Your task to perform on an android device: Search for "razer kraken" on target, select the first entry, add it to the cart, then select checkout. Image 0: 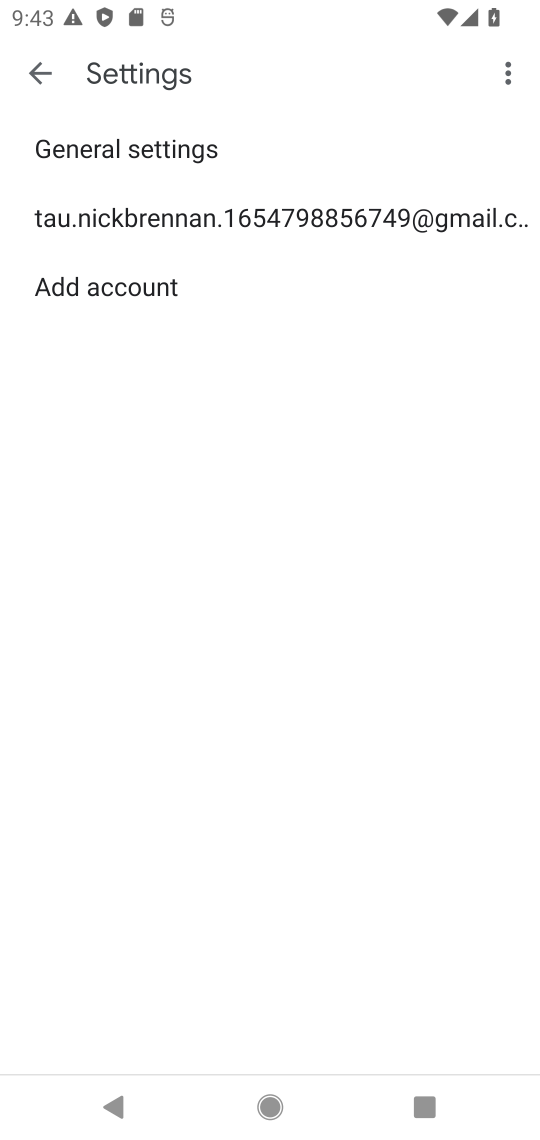
Step 0: press home button
Your task to perform on an android device: Search for "razer kraken" on target, select the first entry, add it to the cart, then select checkout. Image 1: 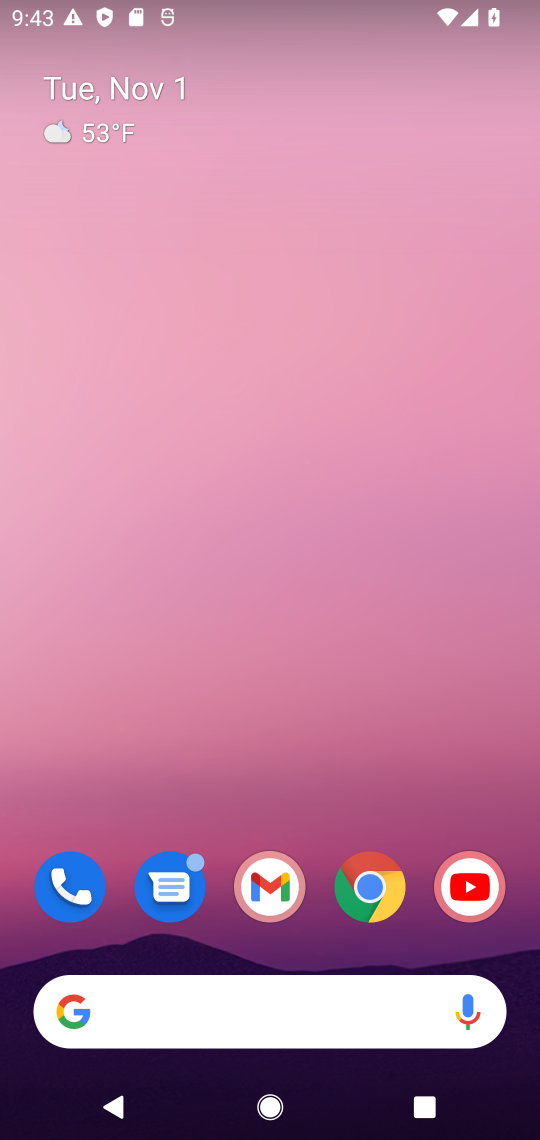
Step 1: click (365, 187)
Your task to perform on an android device: Search for "razer kraken" on target, select the first entry, add it to the cart, then select checkout. Image 2: 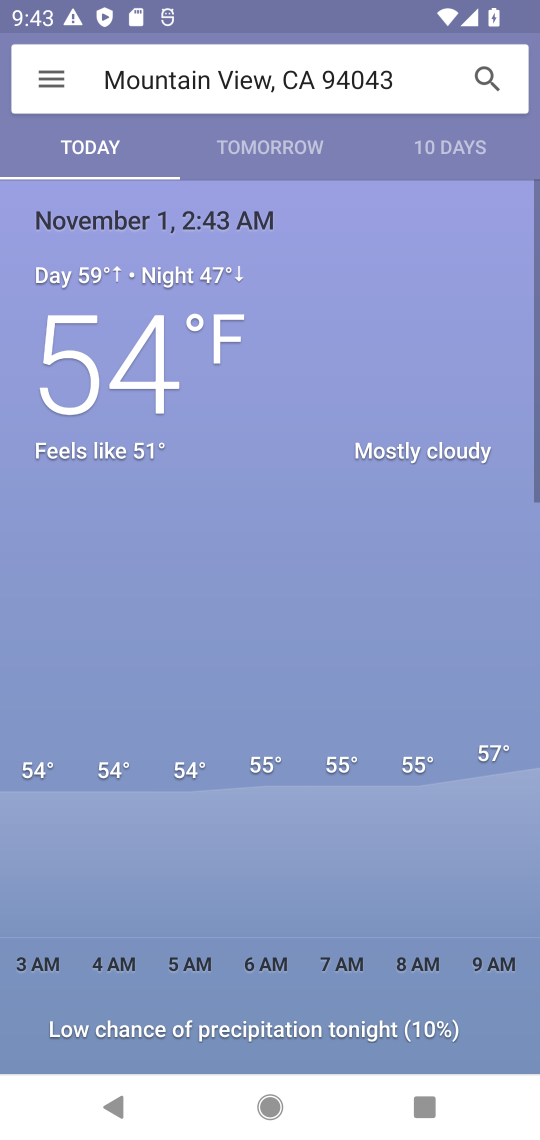
Step 2: press home button
Your task to perform on an android device: Search for "razer kraken" on target, select the first entry, add it to the cart, then select checkout. Image 3: 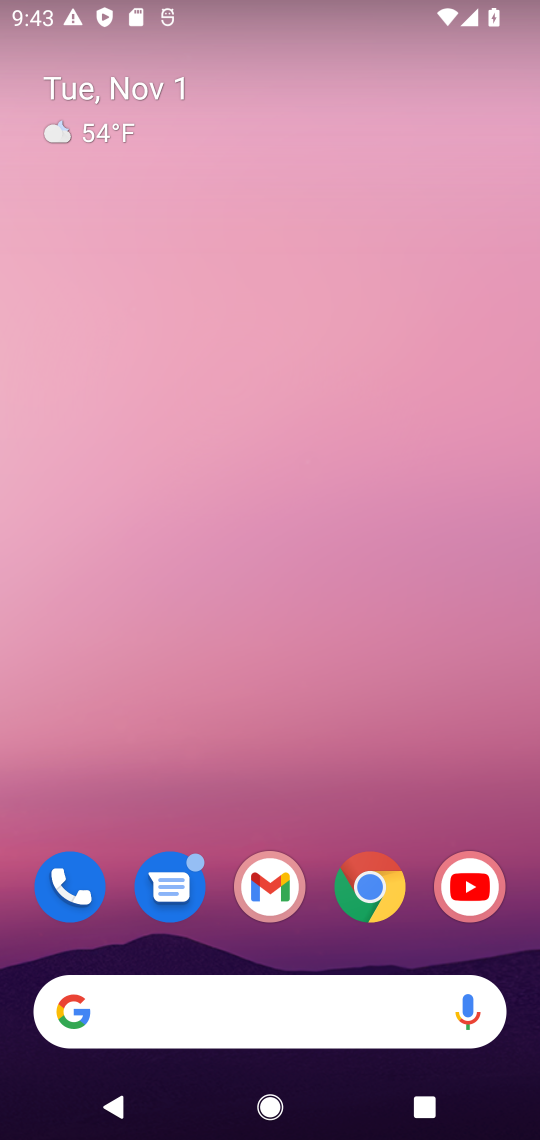
Step 3: drag from (409, 595) to (374, 153)
Your task to perform on an android device: Search for "razer kraken" on target, select the first entry, add it to the cart, then select checkout. Image 4: 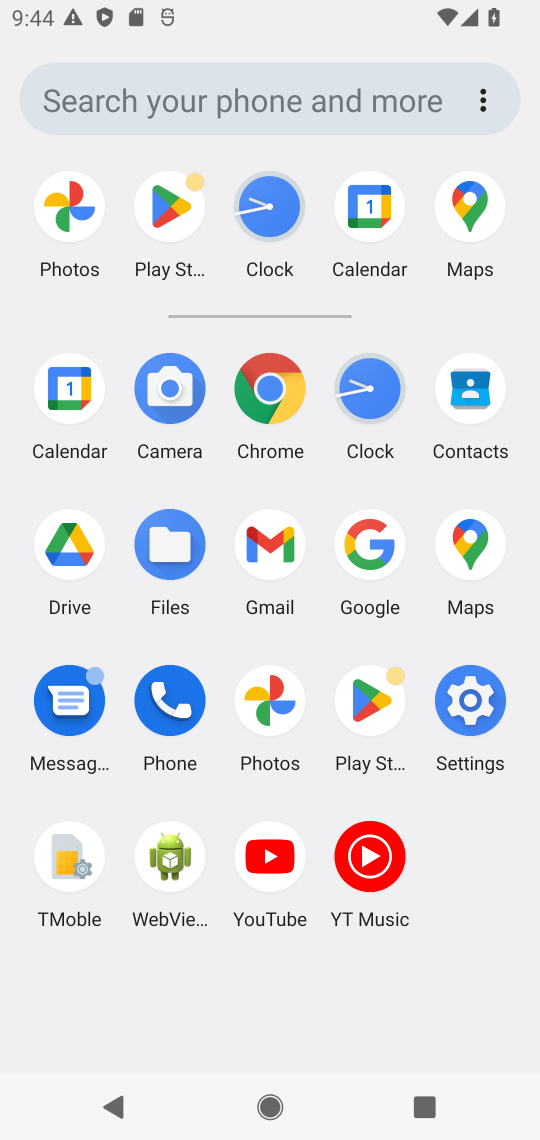
Step 4: click (373, 545)
Your task to perform on an android device: Search for "razer kraken" on target, select the first entry, add it to the cart, then select checkout. Image 5: 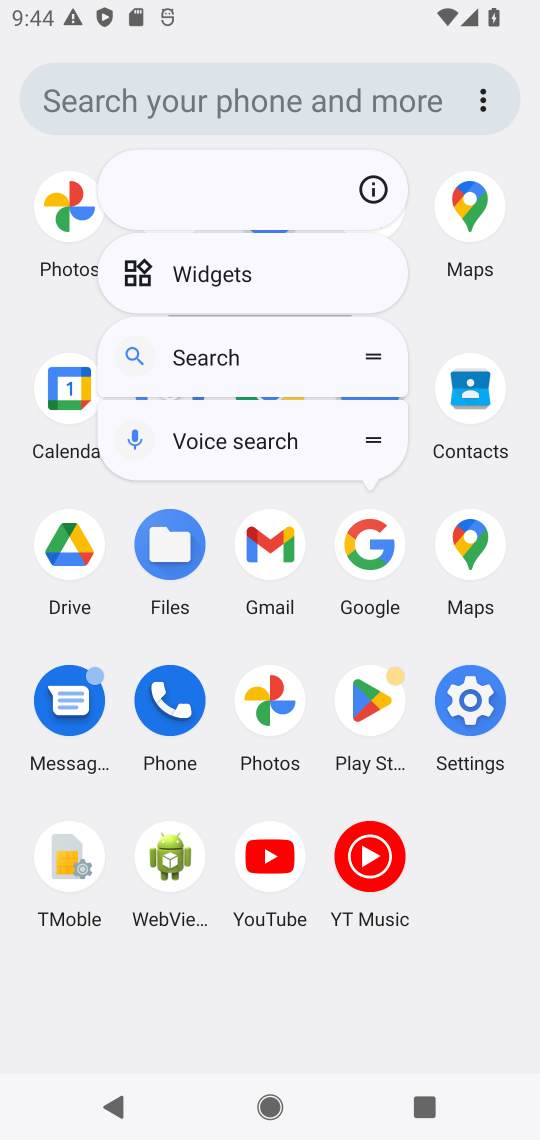
Step 5: click (369, 536)
Your task to perform on an android device: Search for "razer kraken" on target, select the first entry, add it to the cart, then select checkout. Image 6: 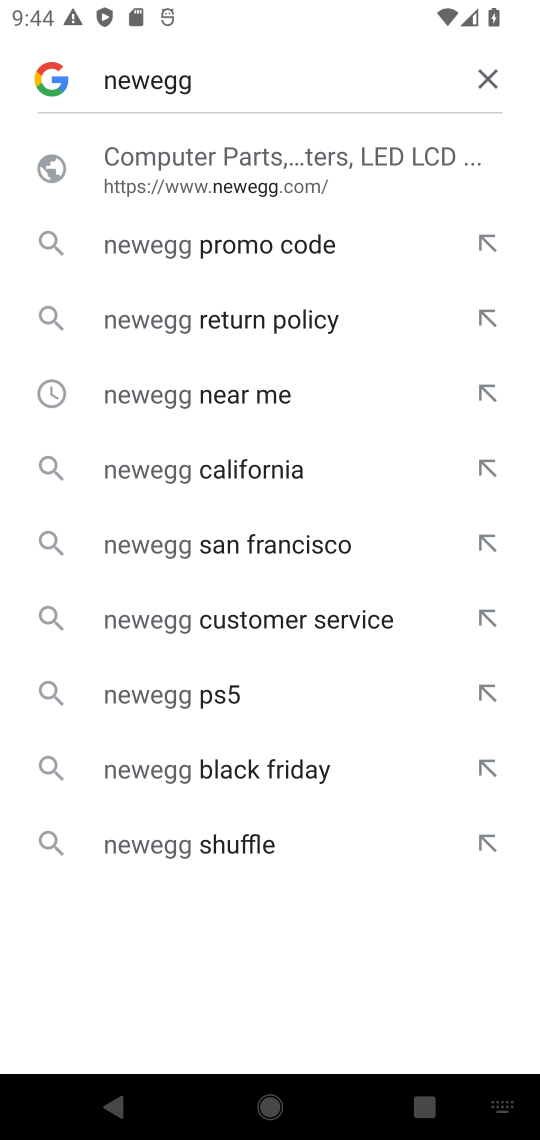
Step 6: click (488, 88)
Your task to perform on an android device: Search for "razer kraken" on target, select the first entry, add it to the cart, then select checkout. Image 7: 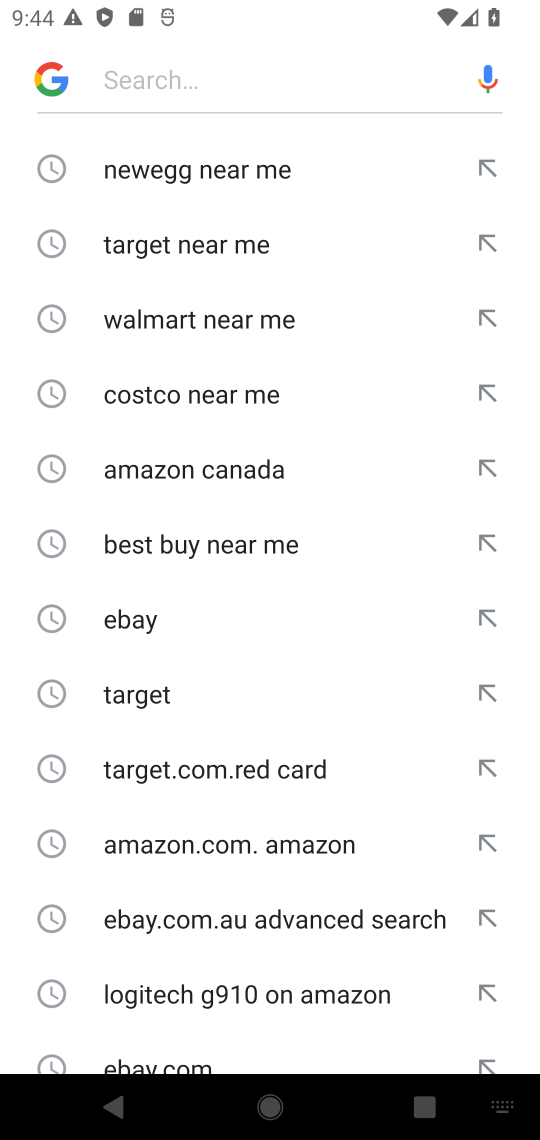
Step 7: click (184, 79)
Your task to perform on an android device: Search for "razer kraken" on target, select the first entry, add it to the cart, then select checkout. Image 8: 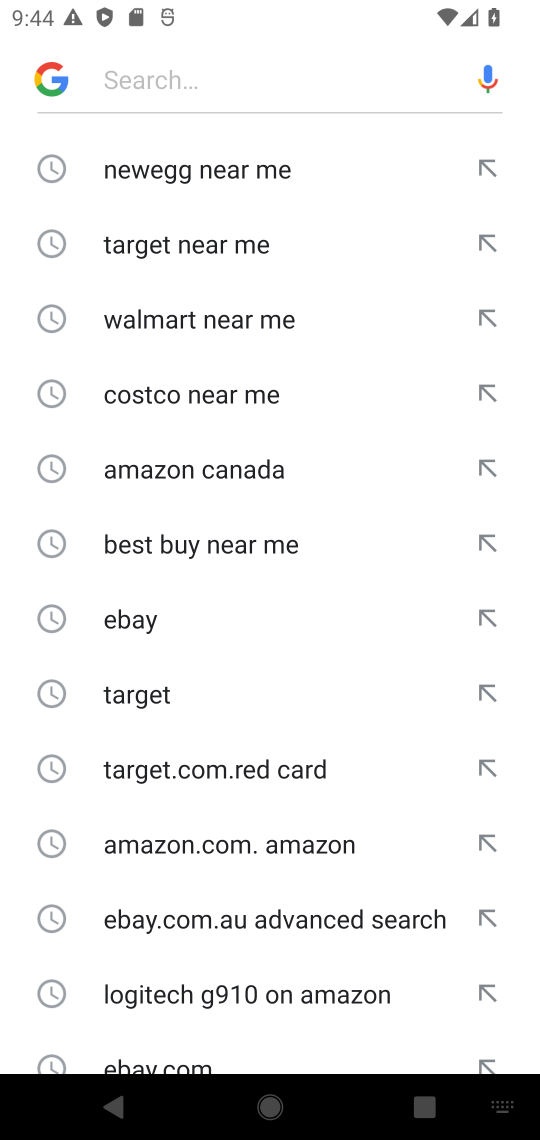
Step 8: type "target "
Your task to perform on an android device: Search for "razer kraken" on target, select the first entry, add it to the cart, then select checkout. Image 9: 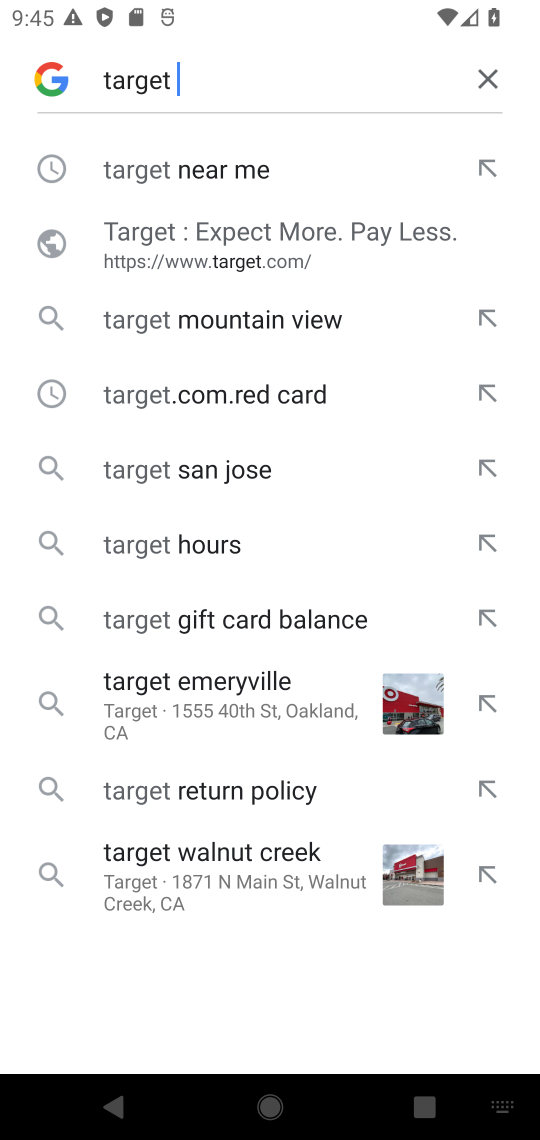
Step 9: click (245, 170)
Your task to perform on an android device: Search for "razer kraken" on target, select the first entry, add it to the cart, then select checkout. Image 10: 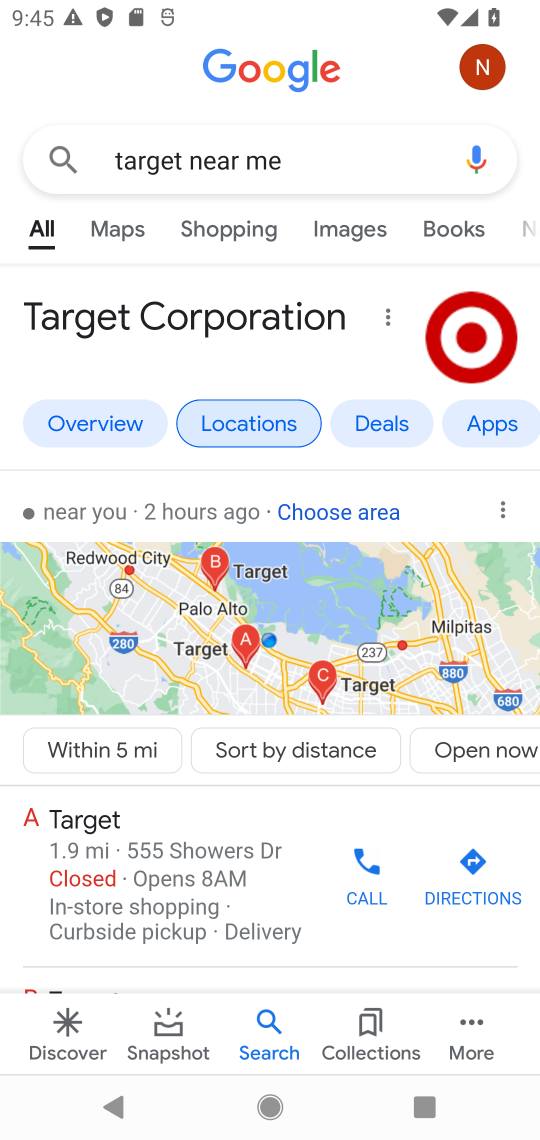
Step 10: drag from (243, 925) to (328, 311)
Your task to perform on an android device: Search for "razer kraken" on target, select the first entry, add it to the cart, then select checkout. Image 11: 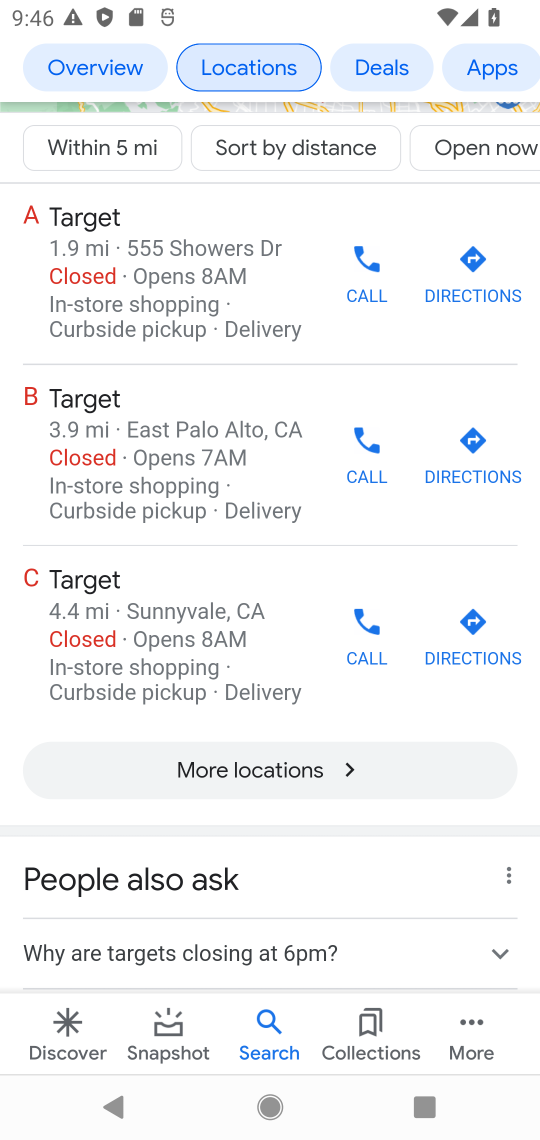
Step 11: drag from (240, 898) to (263, 231)
Your task to perform on an android device: Search for "razer kraken" on target, select the first entry, add it to the cart, then select checkout. Image 12: 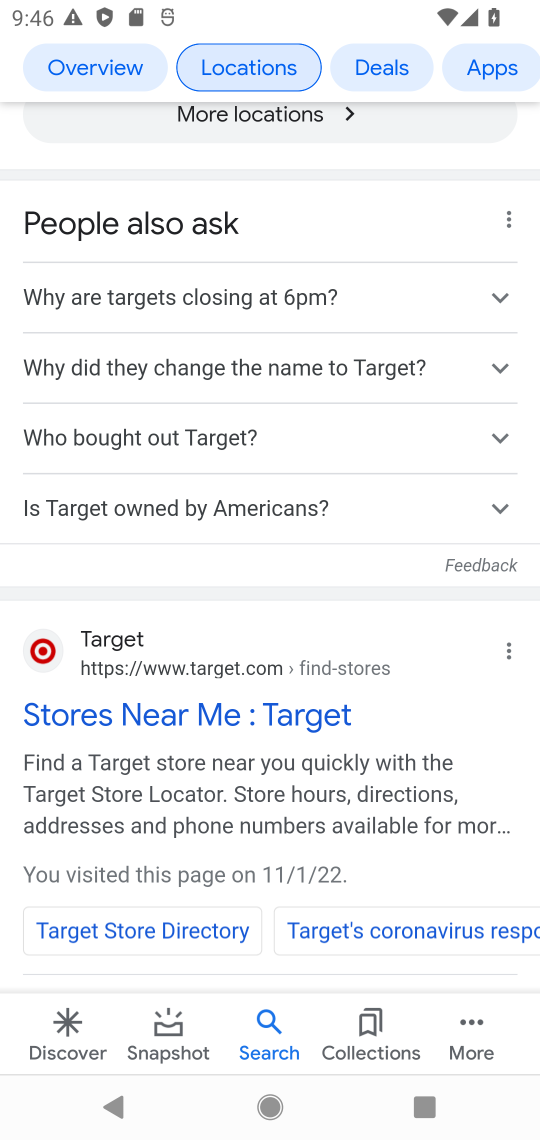
Step 12: click (47, 653)
Your task to perform on an android device: Search for "razer kraken" on target, select the first entry, add it to the cart, then select checkout. Image 13: 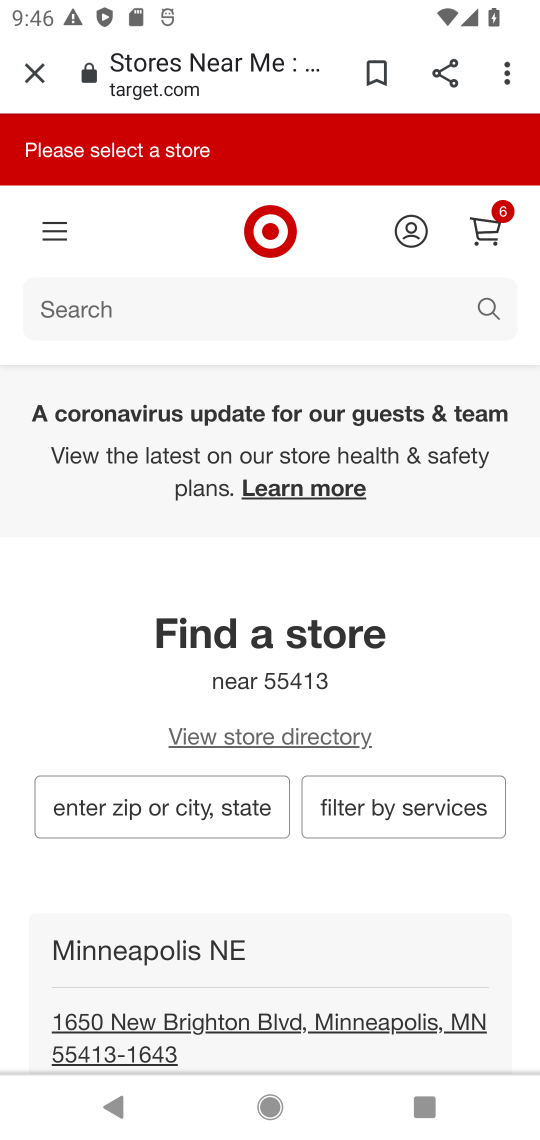
Step 13: click (209, 284)
Your task to perform on an android device: Search for "razer kraken" on target, select the first entry, add it to the cart, then select checkout. Image 14: 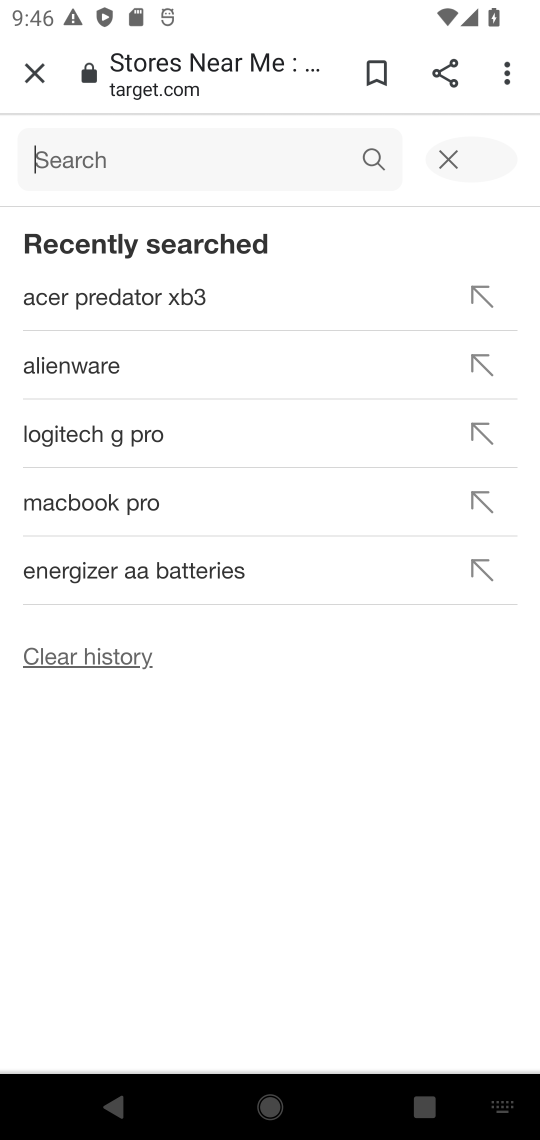
Step 14: click (139, 143)
Your task to perform on an android device: Search for "razer kraken" on target, select the first entry, add it to the cart, then select checkout. Image 15: 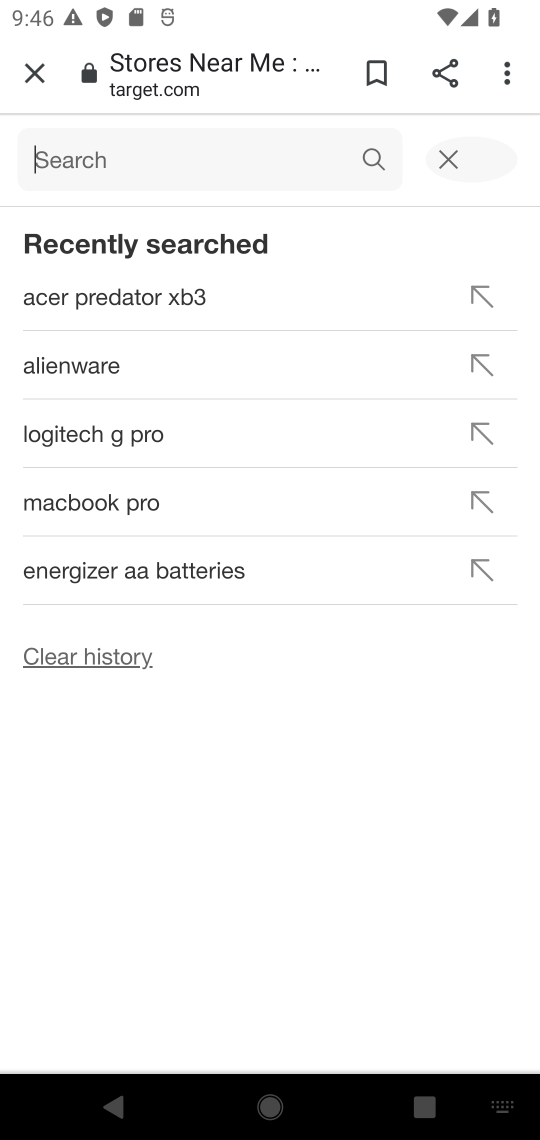
Step 15: type "razer krake "
Your task to perform on an android device: Search for "razer kraken" on target, select the first entry, add it to the cart, then select checkout. Image 16: 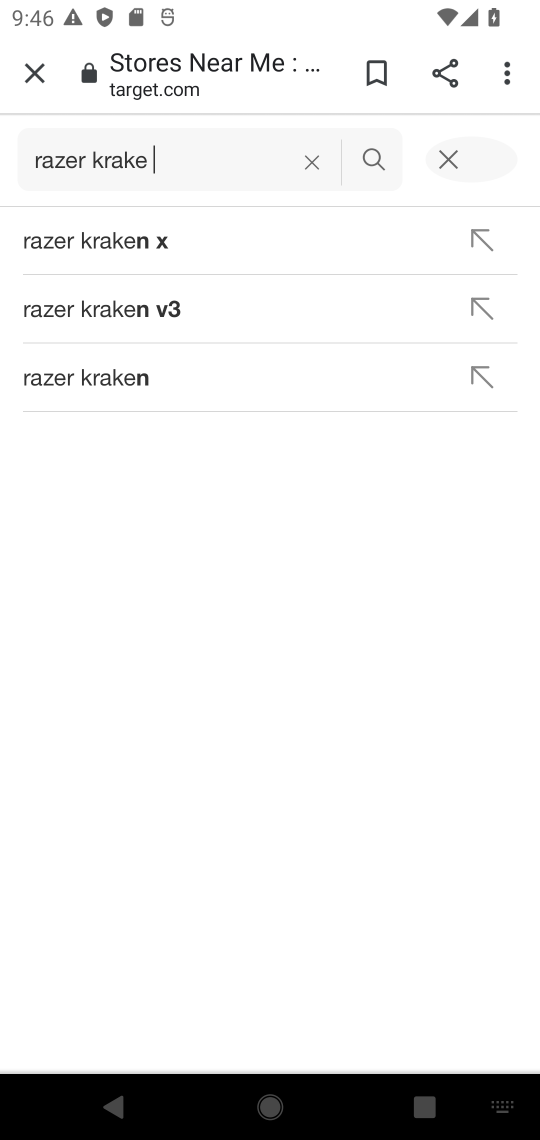
Step 16: click (195, 245)
Your task to perform on an android device: Search for "razer kraken" on target, select the first entry, add it to the cart, then select checkout. Image 17: 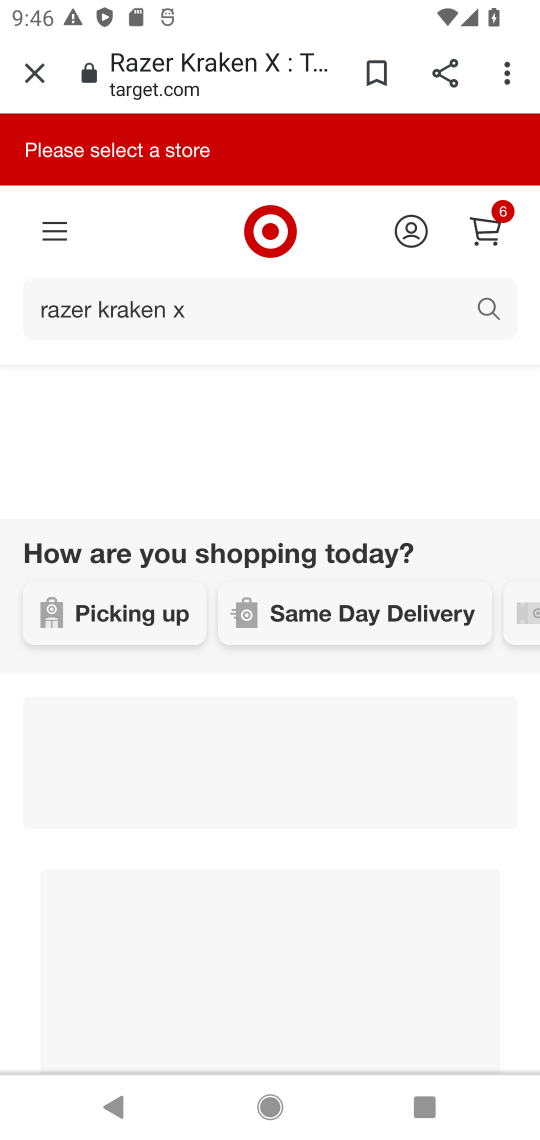
Step 17: drag from (270, 928) to (325, 329)
Your task to perform on an android device: Search for "razer kraken" on target, select the first entry, add it to the cart, then select checkout. Image 18: 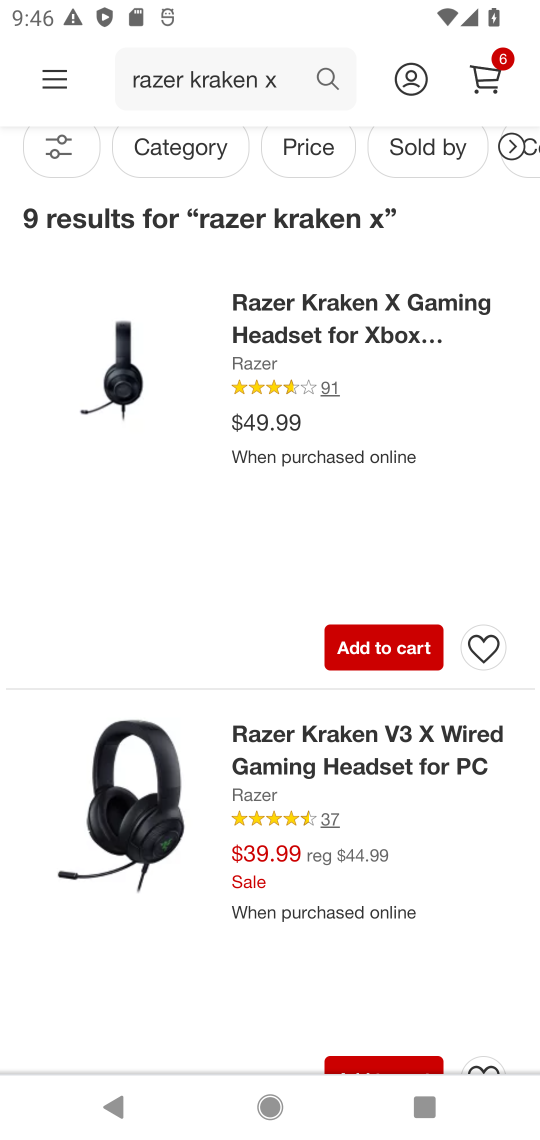
Step 18: click (386, 636)
Your task to perform on an android device: Search for "razer kraken" on target, select the first entry, add it to the cart, then select checkout. Image 19: 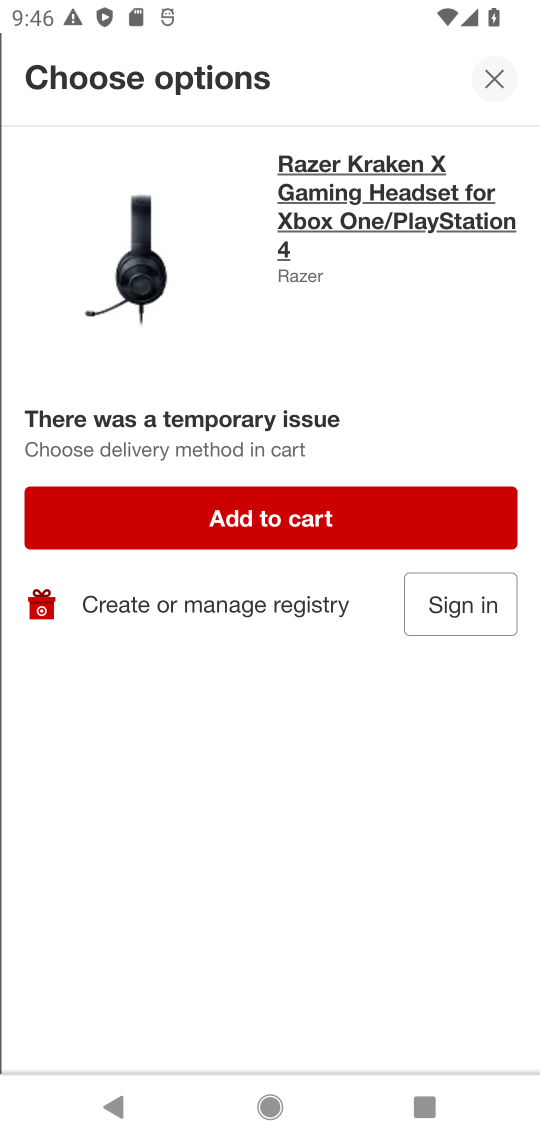
Step 19: task complete